Your task to perform on an android device: Open the calendar app, open the side menu, and click the "Day" option Image 0: 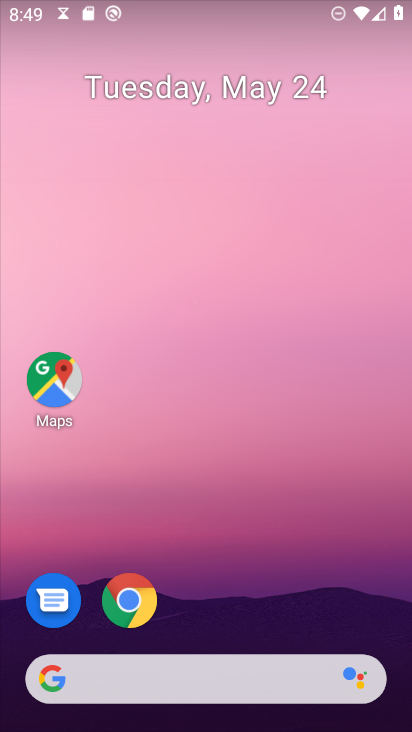
Step 0: drag from (235, 596) to (277, 84)
Your task to perform on an android device: Open the calendar app, open the side menu, and click the "Day" option Image 1: 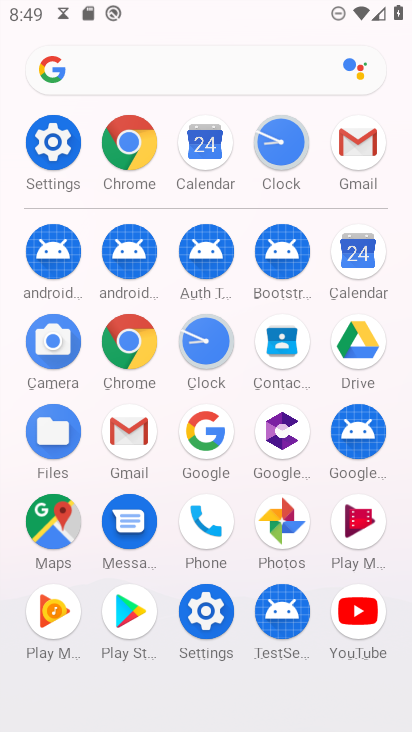
Step 1: click (357, 259)
Your task to perform on an android device: Open the calendar app, open the side menu, and click the "Day" option Image 2: 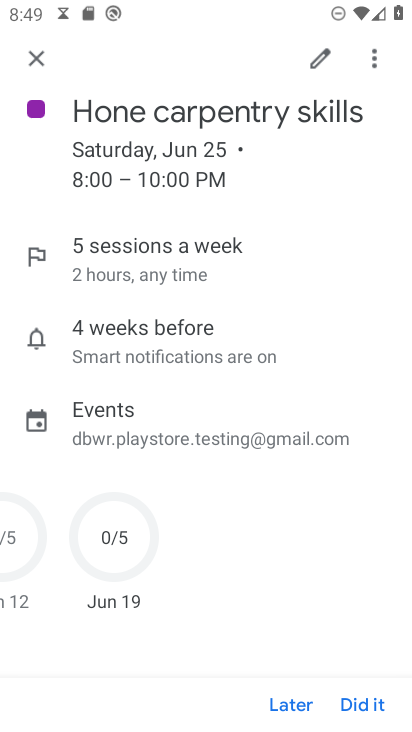
Step 2: click (32, 64)
Your task to perform on an android device: Open the calendar app, open the side menu, and click the "Day" option Image 3: 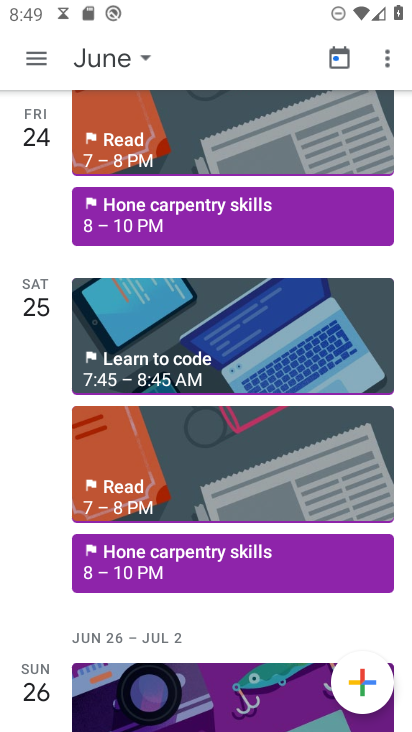
Step 3: click (51, 59)
Your task to perform on an android device: Open the calendar app, open the side menu, and click the "Day" option Image 4: 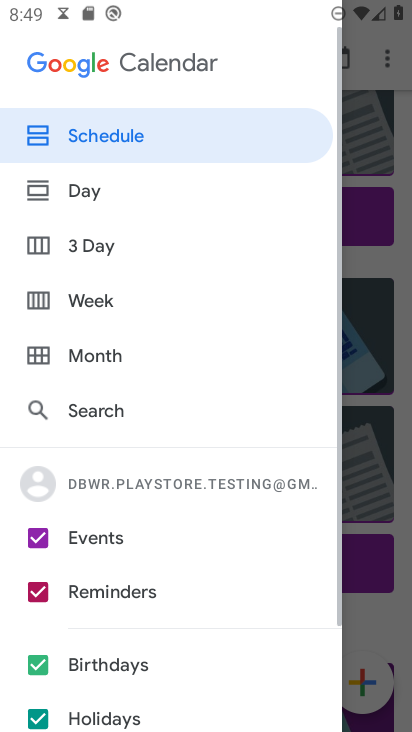
Step 4: click (85, 187)
Your task to perform on an android device: Open the calendar app, open the side menu, and click the "Day" option Image 5: 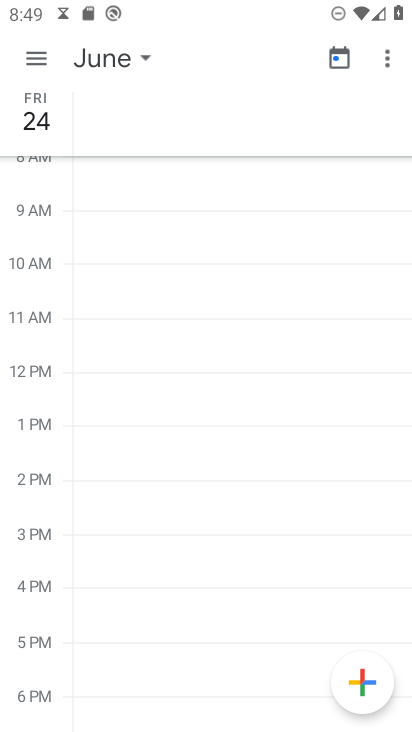
Step 5: task complete